Your task to perform on an android device: choose inbox layout in the gmail app Image 0: 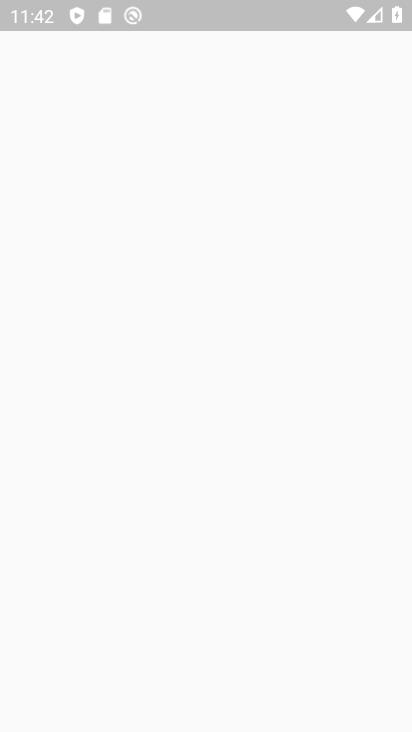
Step 0: press home button
Your task to perform on an android device: choose inbox layout in the gmail app Image 1: 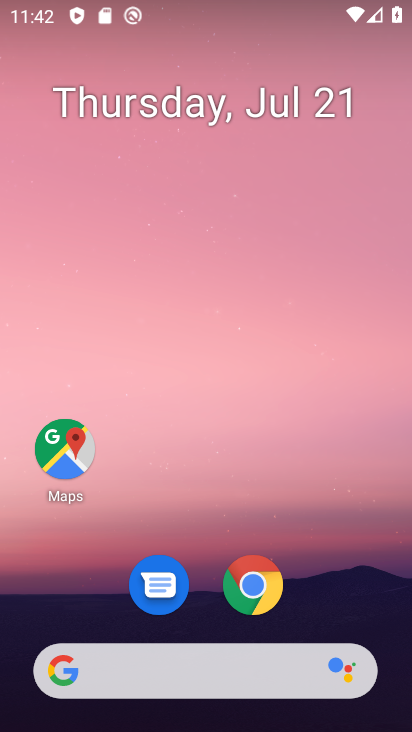
Step 1: drag from (236, 669) to (316, 207)
Your task to perform on an android device: choose inbox layout in the gmail app Image 2: 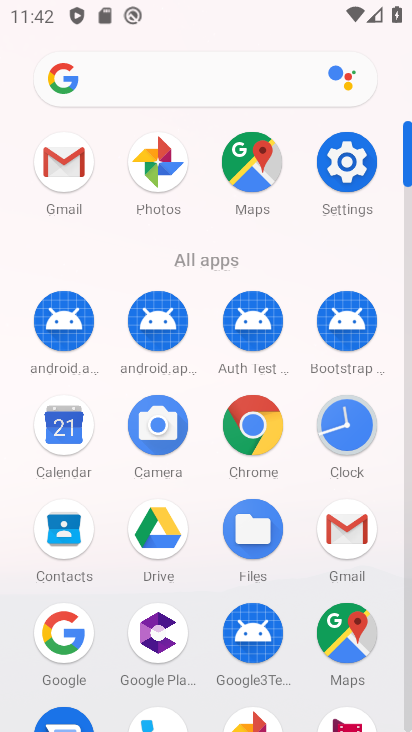
Step 2: click (66, 160)
Your task to perform on an android device: choose inbox layout in the gmail app Image 3: 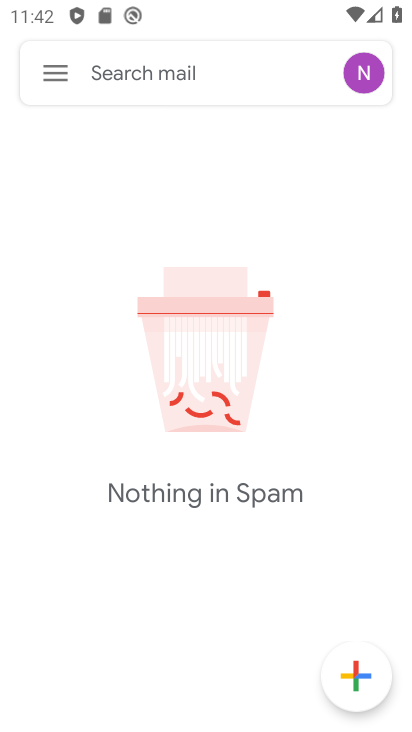
Step 3: click (53, 66)
Your task to perform on an android device: choose inbox layout in the gmail app Image 4: 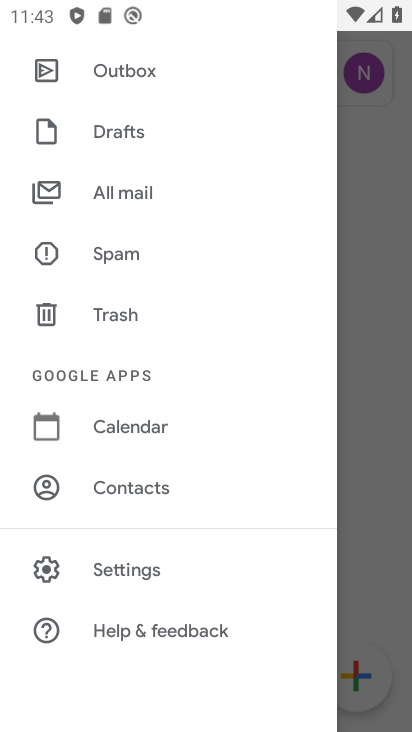
Step 4: click (158, 573)
Your task to perform on an android device: choose inbox layout in the gmail app Image 5: 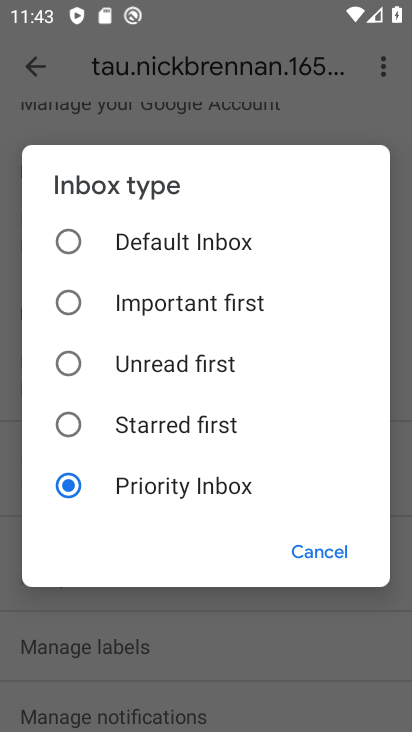
Step 5: click (68, 292)
Your task to perform on an android device: choose inbox layout in the gmail app Image 6: 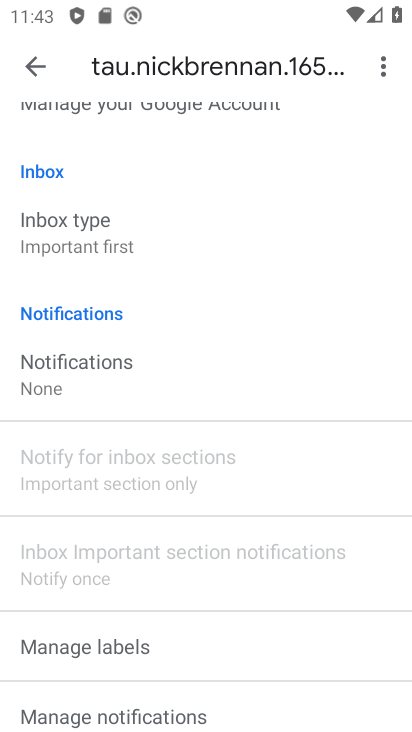
Step 6: task complete